Your task to perform on an android device: allow cookies in the chrome app Image 0: 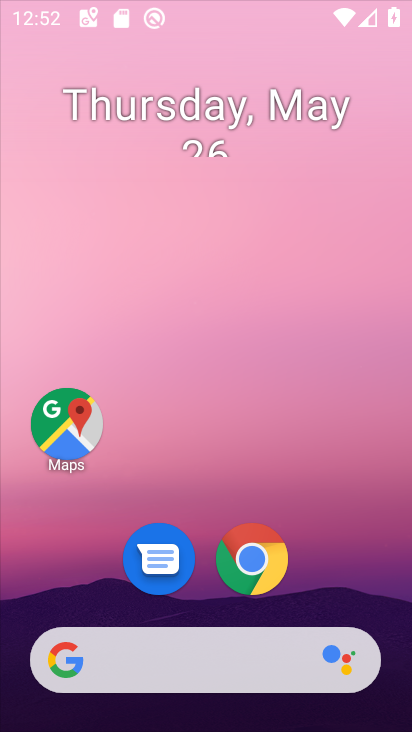
Step 0: press home button
Your task to perform on an android device: allow cookies in the chrome app Image 1: 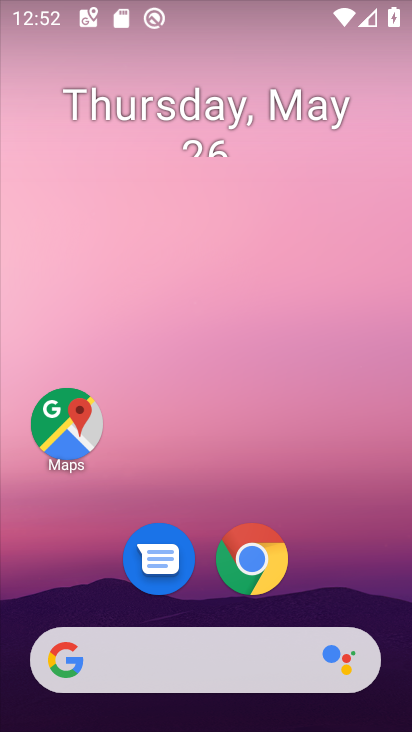
Step 1: click (253, 557)
Your task to perform on an android device: allow cookies in the chrome app Image 2: 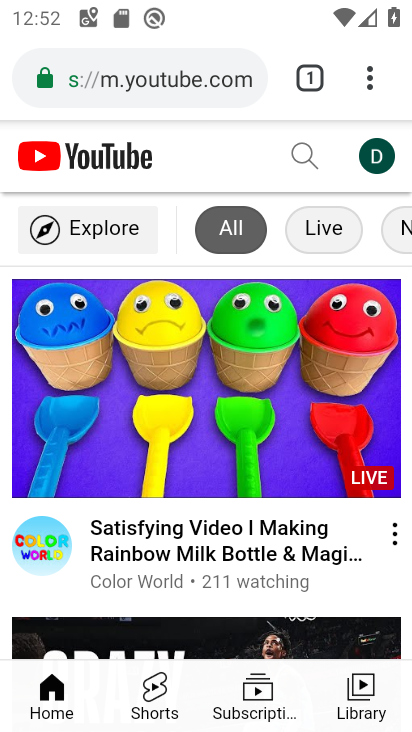
Step 2: drag from (372, 61) to (169, 618)
Your task to perform on an android device: allow cookies in the chrome app Image 3: 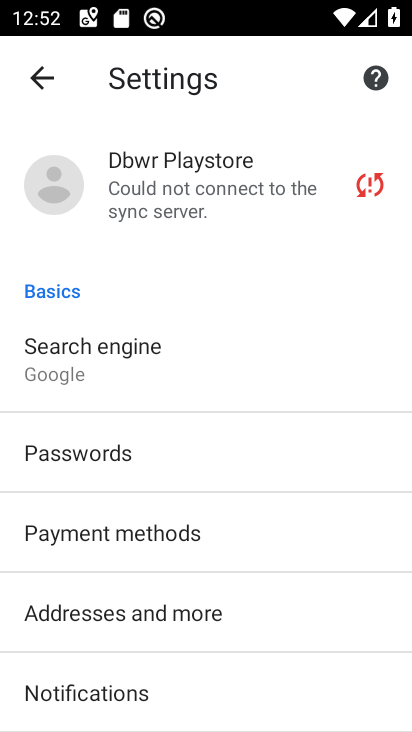
Step 3: drag from (265, 680) to (280, 113)
Your task to perform on an android device: allow cookies in the chrome app Image 4: 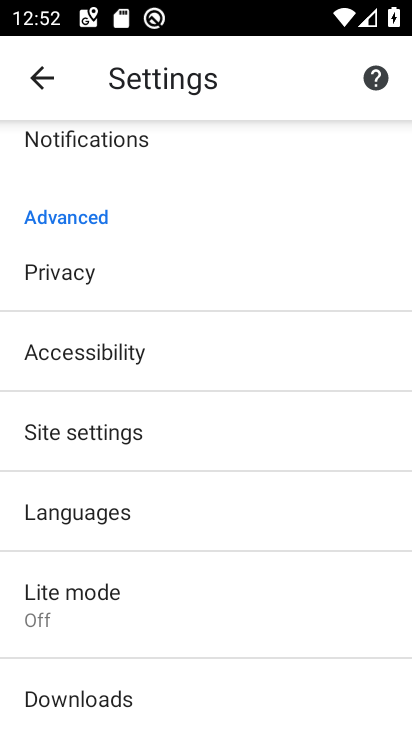
Step 4: click (88, 438)
Your task to perform on an android device: allow cookies in the chrome app Image 5: 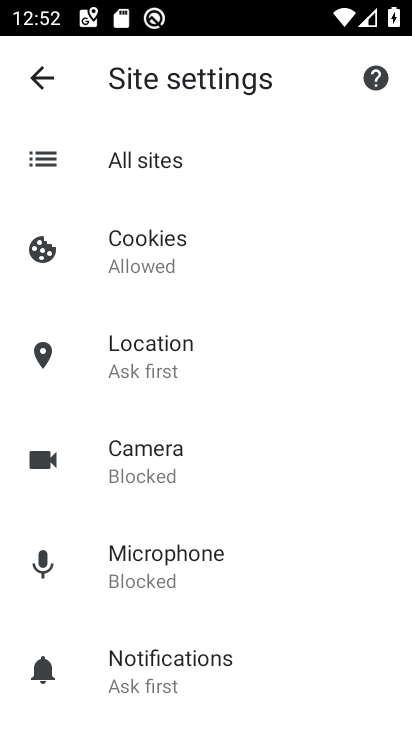
Step 5: click (141, 250)
Your task to perform on an android device: allow cookies in the chrome app Image 6: 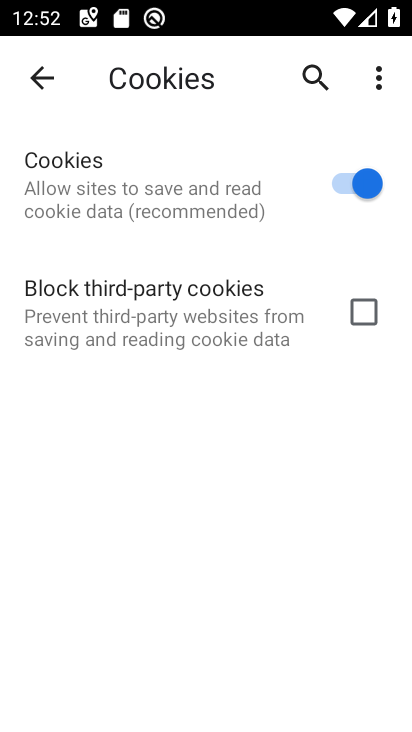
Step 6: task complete